Your task to perform on an android device: Open Yahoo.com Image 0: 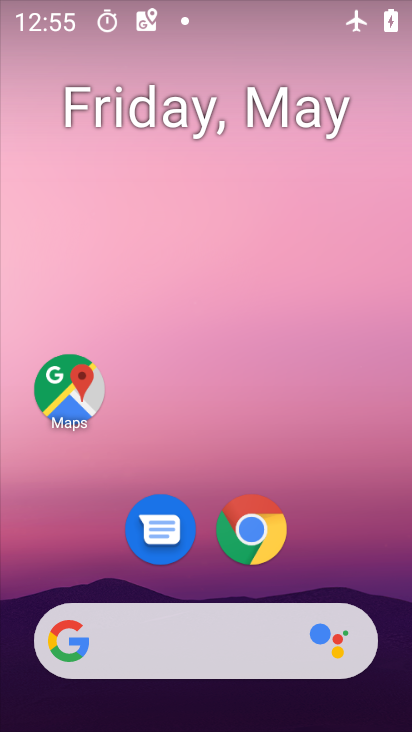
Step 0: drag from (187, 583) to (140, 53)
Your task to perform on an android device: Open Yahoo.com Image 1: 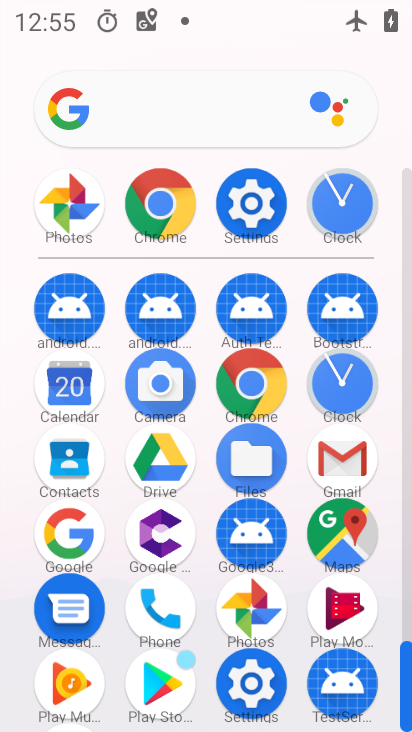
Step 1: click (165, 221)
Your task to perform on an android device: Open Yahoo.com Image 2: 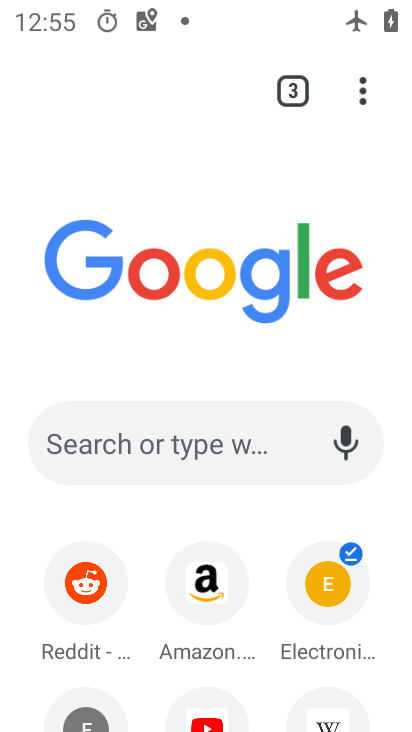
Step 2: click (244, 445)
Your task to perform on an android device: Open Yahoo.com Image 3: 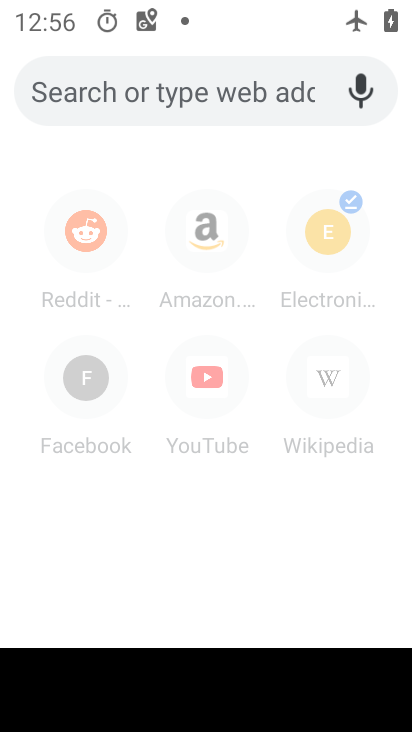
Step 3: type "yahoo"
Your task to perform on an android device: Open Yahoo.com Image 4: 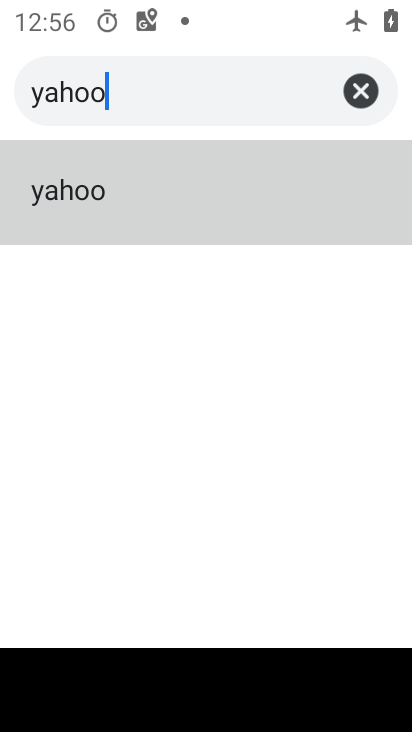
Step 4: click (204, 185)
Your task to perform on an android device: Open Yahoo.com Image 5: 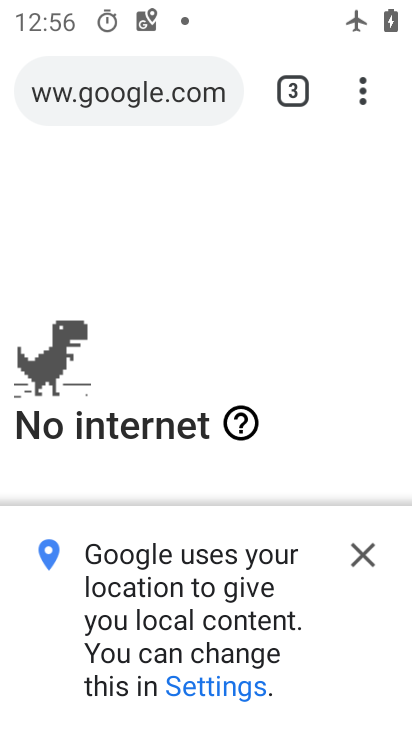
Step 5: task complete